Your task to perform on an android device: turn notification dots off Image 0: 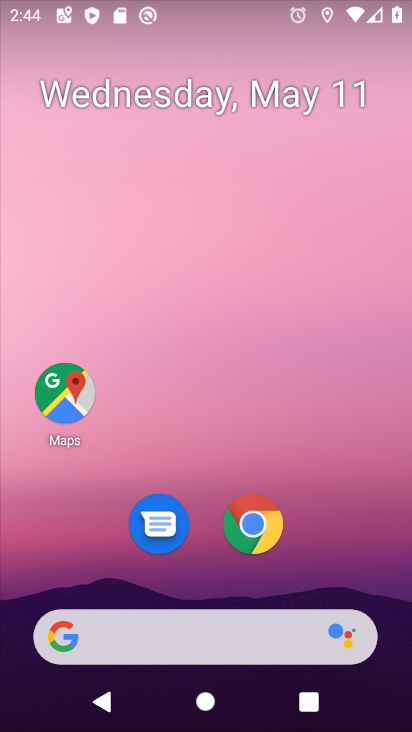
Step 0: drag from (361, 508) to (355, 70)
Your task to perform on an android device: turn notification dots off Image 1: 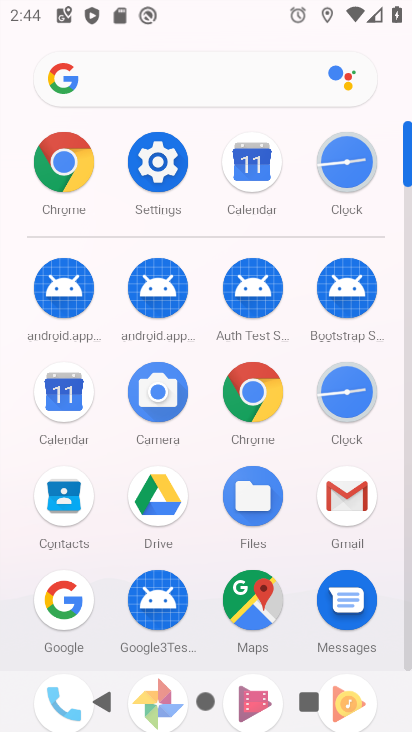
Step 1: click (158, 161)
Your task to perform on an android device: turn notification dots off Image 2: 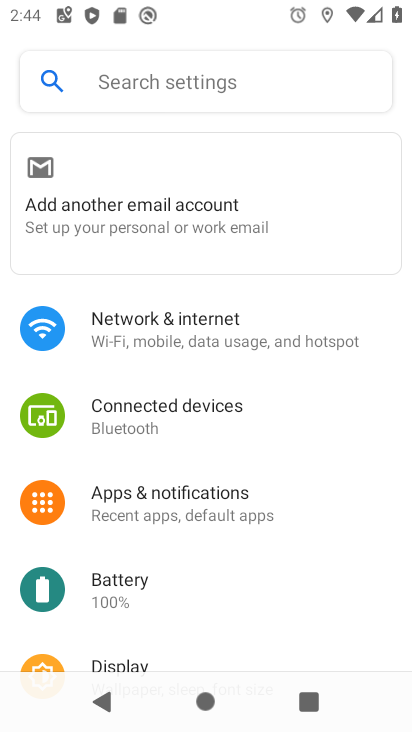
Step 2: click (196, 515)
Your task to perform on an android device: turn notification dots off Image 3: 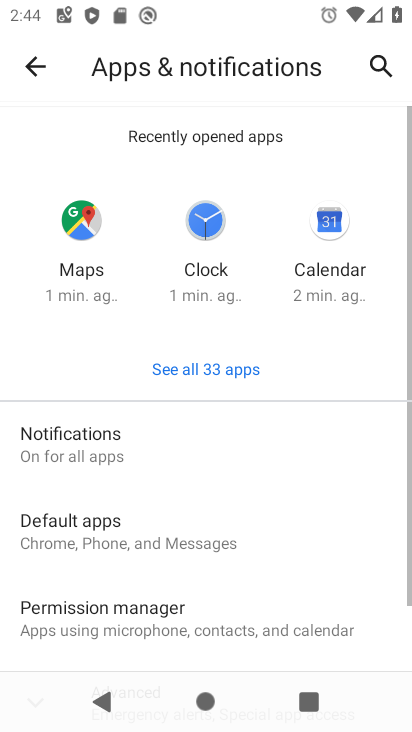
Step 3: click (94, 441)
Your task to perform on an android device: turn notification dots off Image 4: 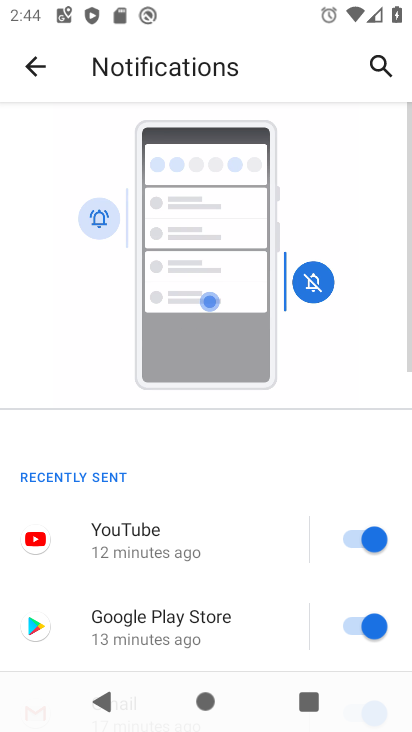
Step 4: drag from (270, 569) to (408, 193)
Your task to perform on an android device: turn notification dots off Image 5: 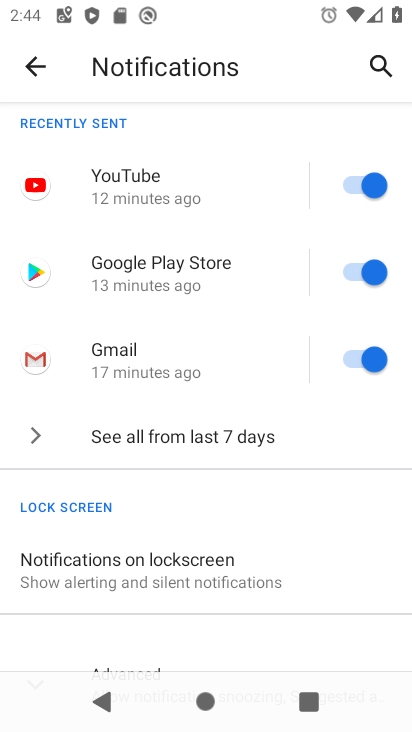
Step 5: drag from (237, 504) to (315, 228)
Your task to perform on an android device: turn notification dots off Image 6: 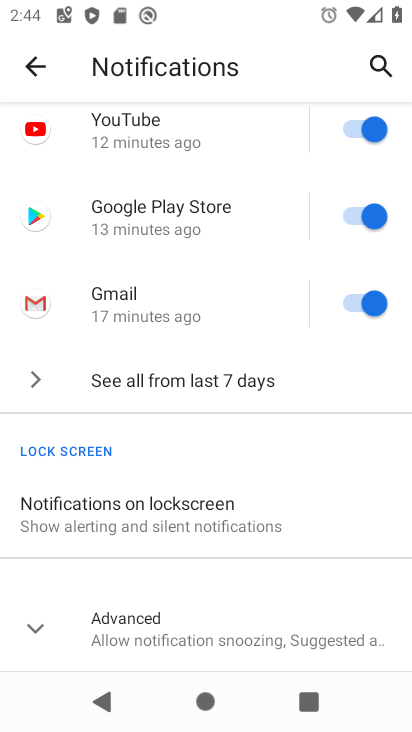
Step 6: click (27, 617)
Your task to perform on an android device: turn notification dots off Image 7: 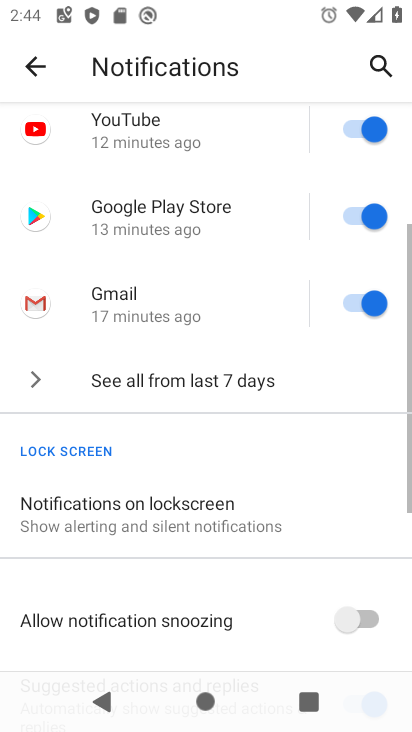
Step 7: drag from (179, 582) to (284, 297)
Your task to perform on an android device: turn notification dots off Image 8: 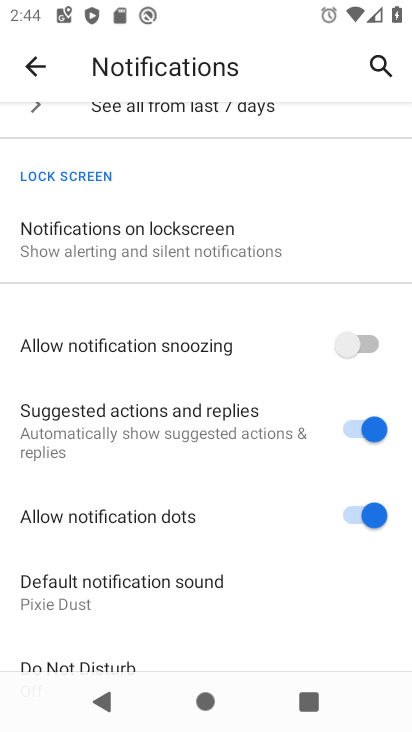
Step 8: click (355, 514)
Your task to perform on an android device: turn notification dots off Image 9: 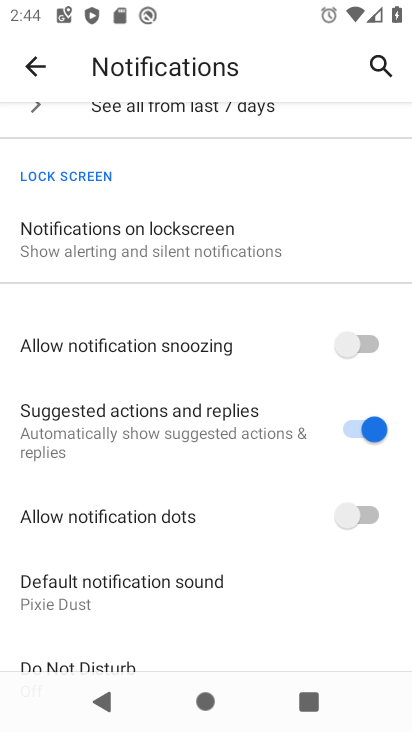
Step 9: task complete